Your task to perform on an android device: Show me popular videos on Youtube Image 0: 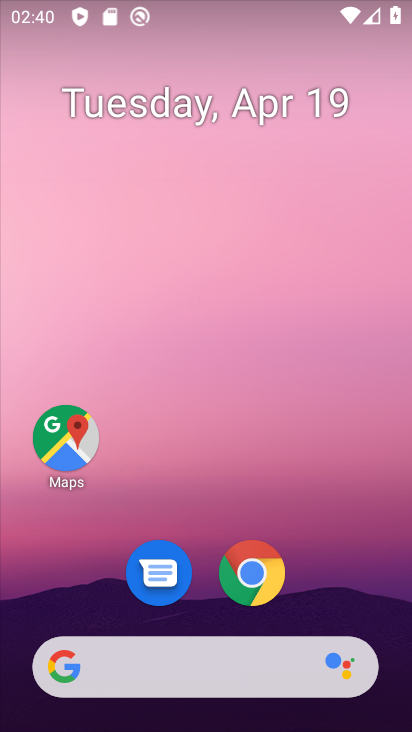
Step 0: drag from (342, 566) to (341, 126)
Your task to perform on an android device: Show me popular videos on Youtube Image 1: 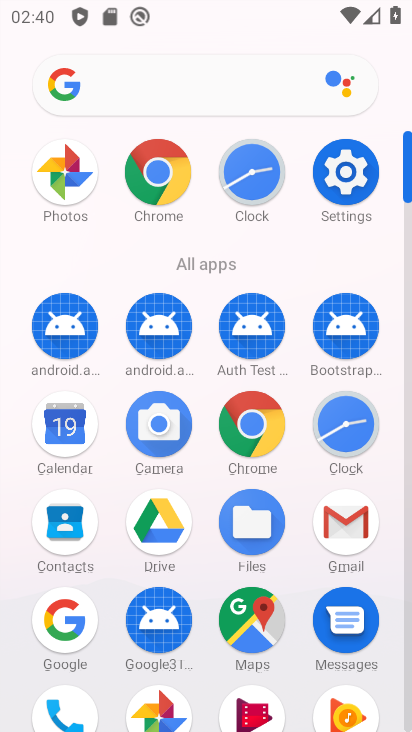
Step 1: drag from (316, 273) to (310, 37)
Your task to perform on an android device: Show me popular videos on Youtube Image 2: 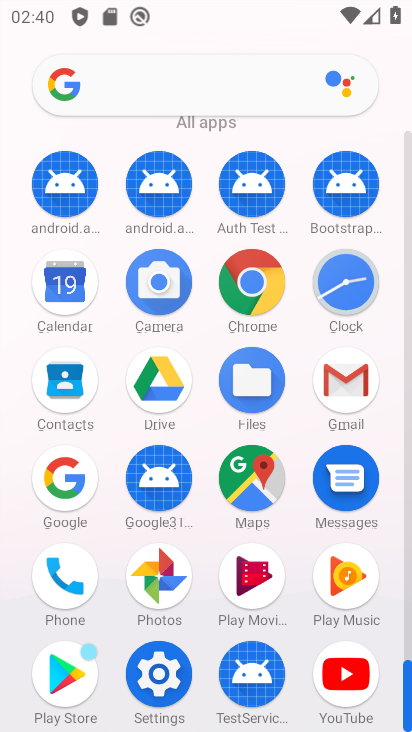
Step 2: click (346, 681)
Your task to perform on an android device: Show me popular videos on Youtube Image 3: 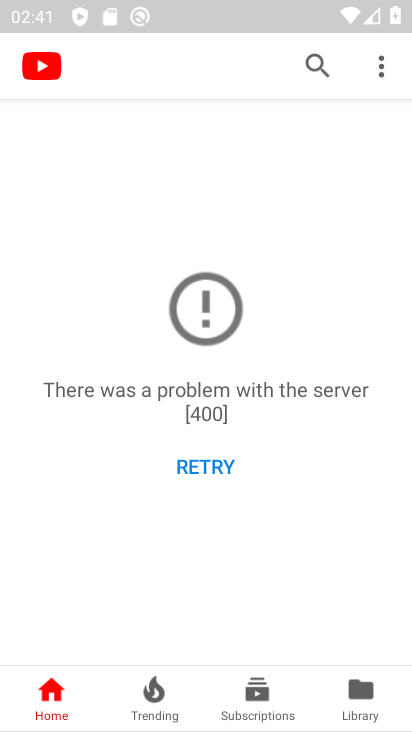
Step 3: task complete